Your task to perform on an android device: Go to sound settings Image 0: 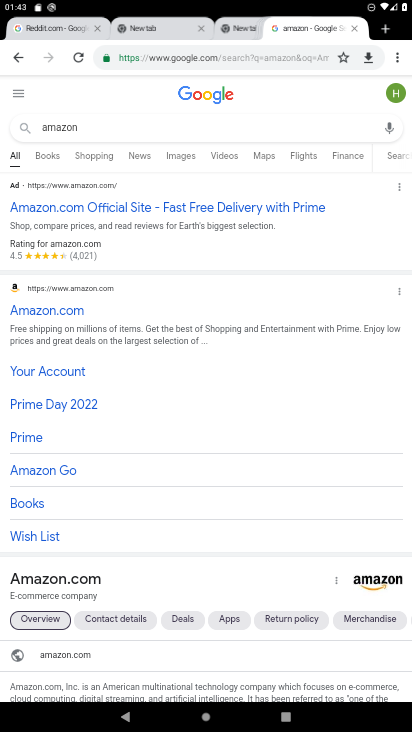
Step 0: press back button
Your task to perform on an android device: Go to sound settings Image 1: 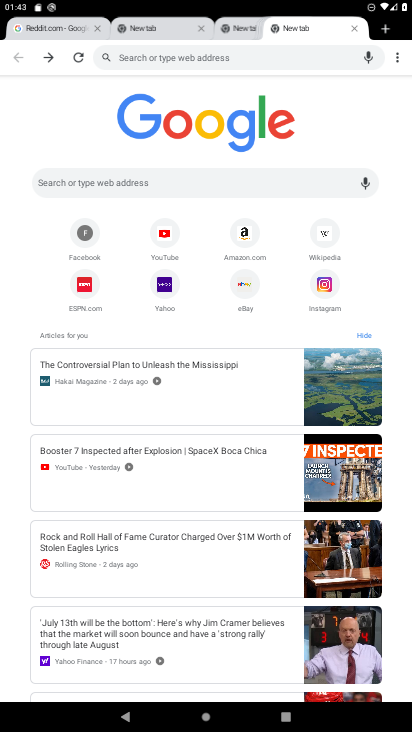
Step 1: press home button
Your task to perform on an android device: Go to sound settings Image 2: 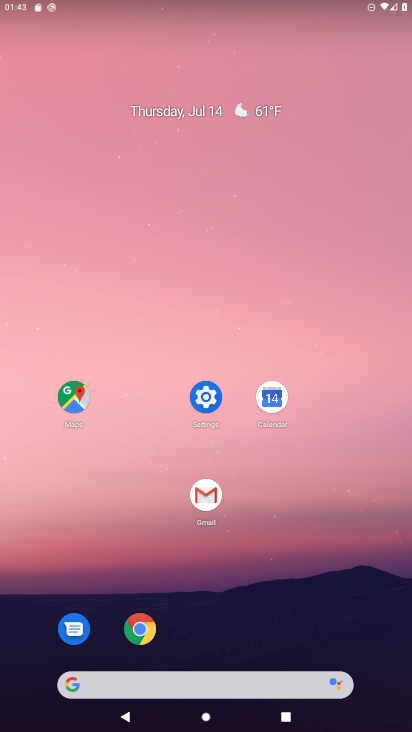
Step 2: click (215, 391)
Your task to perform on an android device: Go to sound settings Image 3: 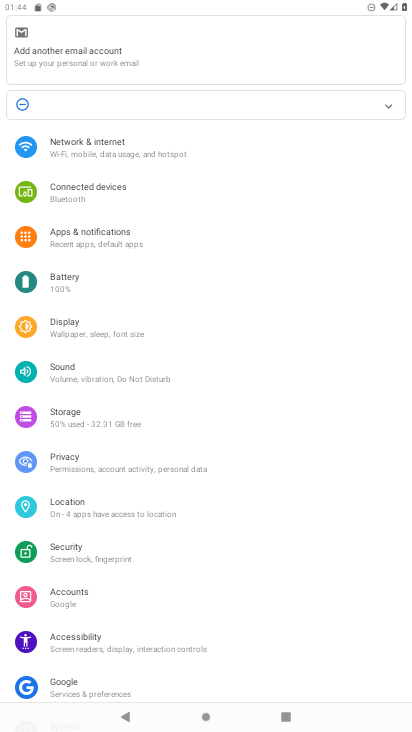
Step 3: click (78, 380)
Your task to perform on an android device: Go to sound settings Image 4: 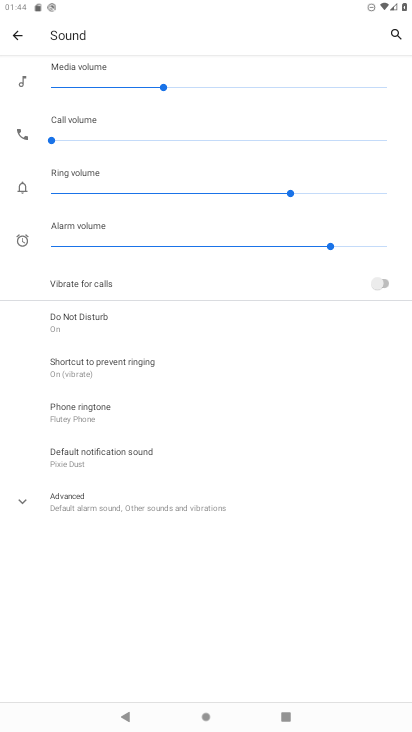
Step 4: click (21, 495)
Your task to perform on an android device: Go to sound settings Image 5: 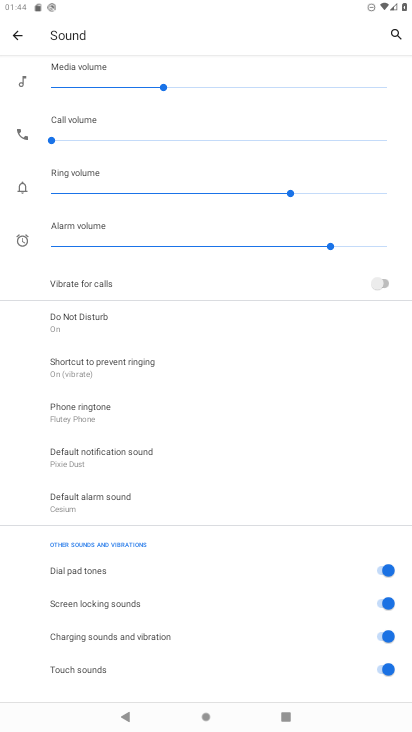
Step 5: task complete